Your task to perform on an android device: Go to eBay Image 0: 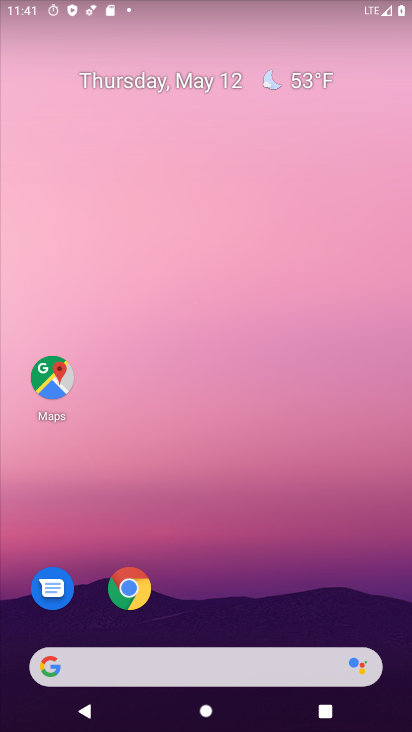
Step 0: click (136, 589)
Your task to perform on an android device: Go to eBay Image 1: 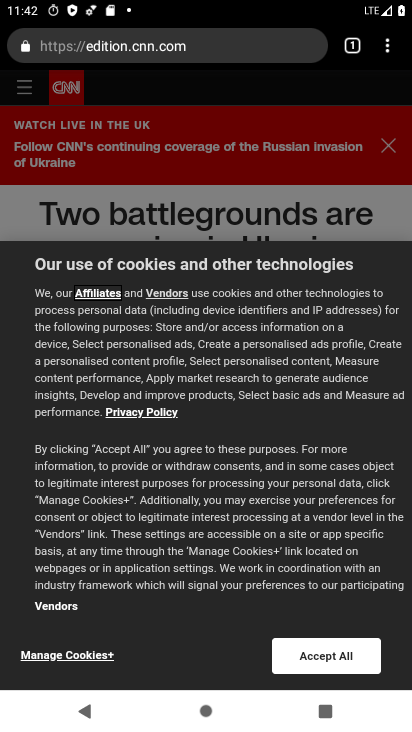
Step 1: click (219, 55)
Your task to perform on an android device: Go to eBay Image 2: 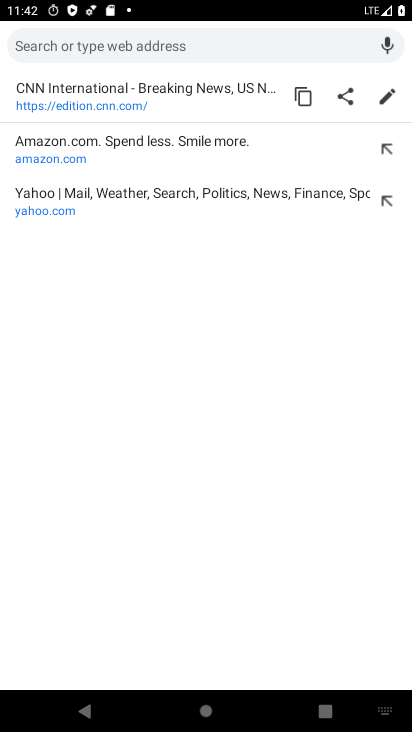
Step 2: type "ebay"
Your task to perform on an android device: Go to eBay Image 3: 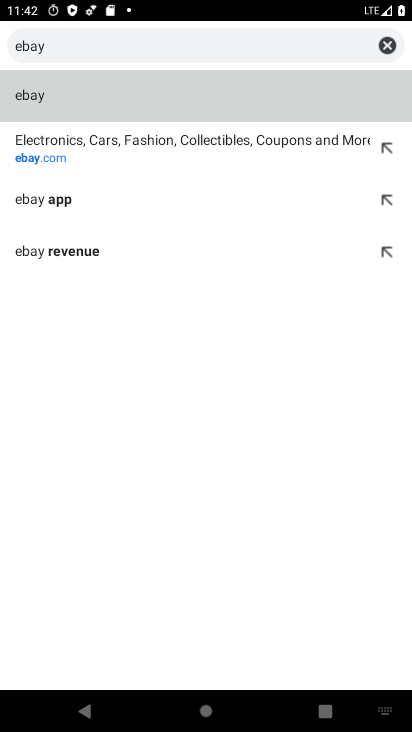
Step 3: click (55, 162)
Your task to perform on an android device: Go to eBay Image 4: 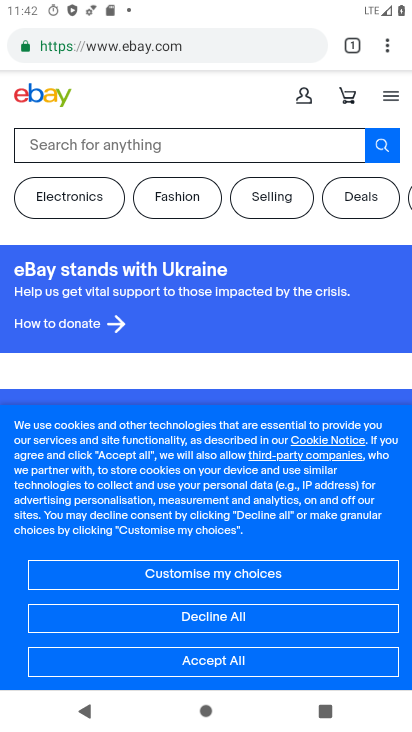
Step 4: task complete